Your task to perform on an android device: Open Reddit.com Image 0: 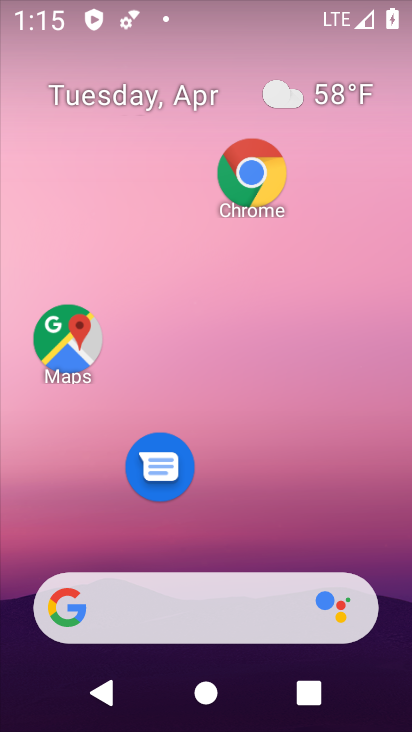
Step 0: drag from (312, 520) to (329, 44)
Your task to perform on an android device: Open Reddit.com Image 1: 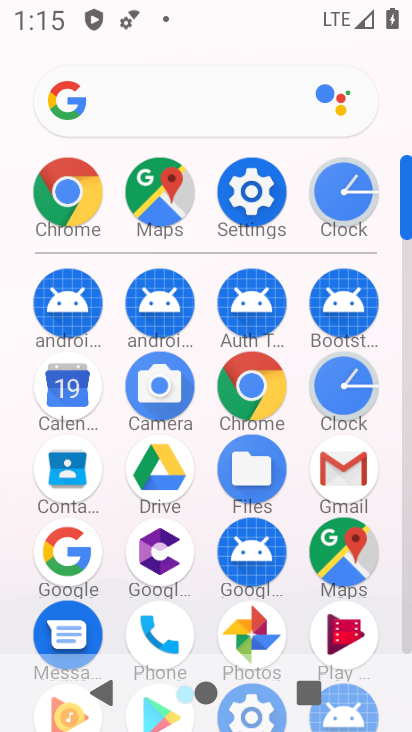
Step 1: click (260, 381)
Your task to perform on an android device: Open Reddit.com Image 2: 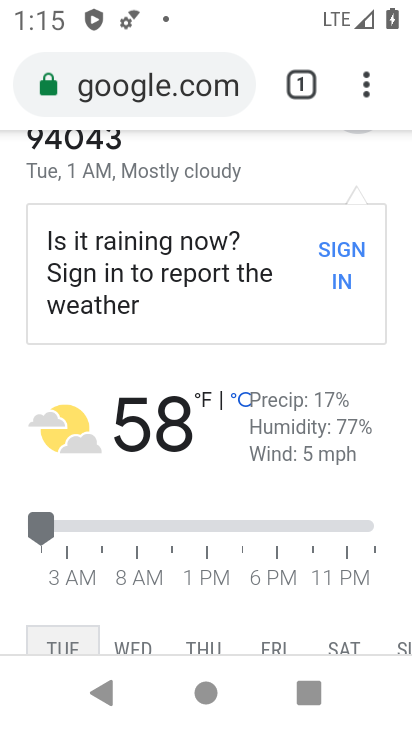
Step 2: click (221, 79)
Your task to perform on an android device: Open Reddit.com Image 3: 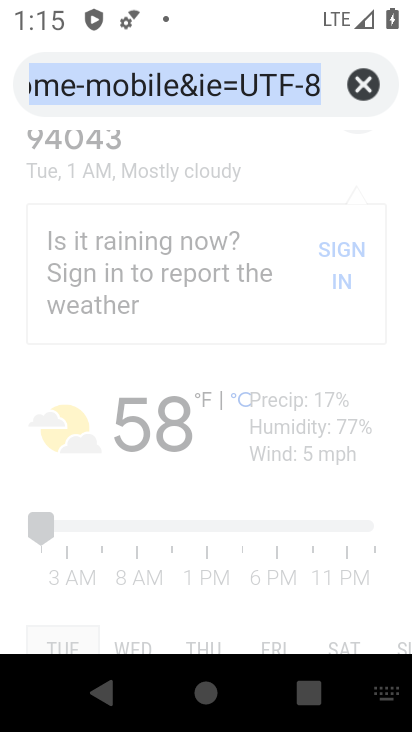
Step 3: click (359, 80)
Your task to perform on an android device: Open Reddit.com Image 4: 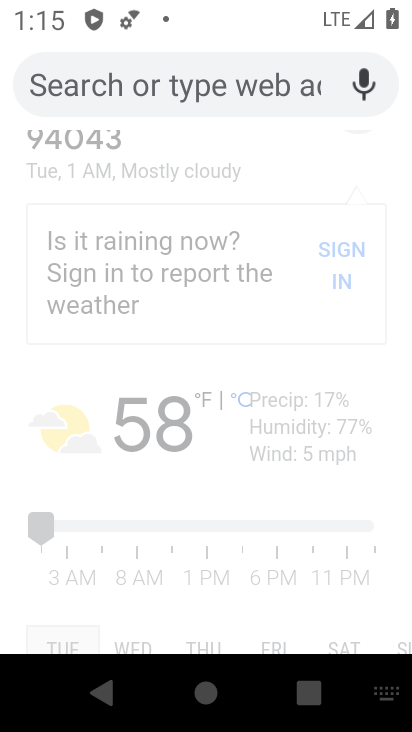
Step 4: type "reddit.com"
Your task to perform on an android device: Open Reddit.com Image 5: 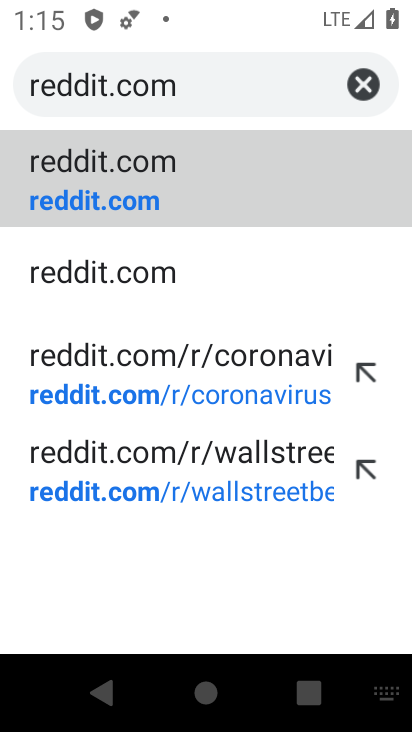
Step 5: click (121, 177)
Your task to perform on an android device: Open Reddit.com Image 6: 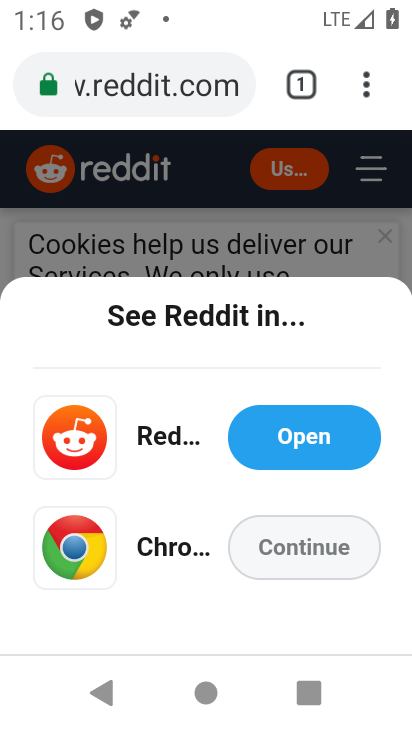
Step 6: task complete